Your task to perform on an android device: Go to Wikipedia Image 0: 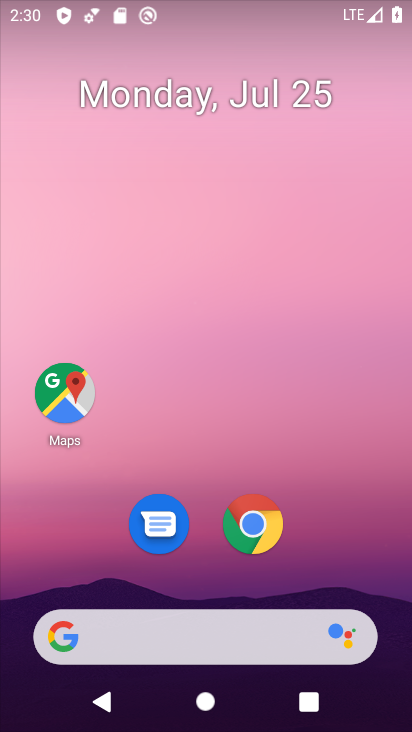
Step 0: click (260, 519)
Your task to perform on an android device: Go to Wikipedia Image 1: 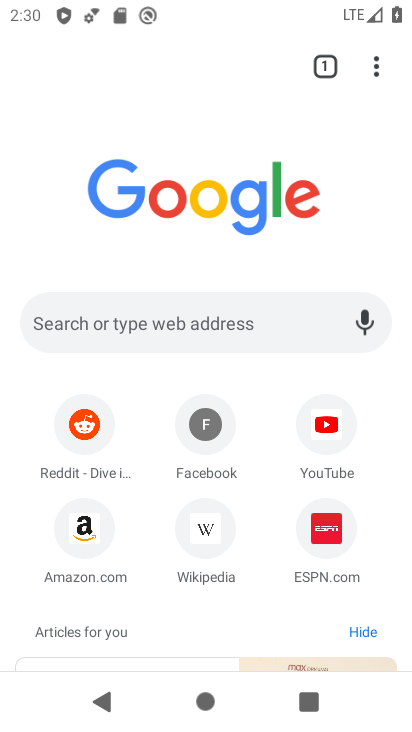
Step 1: click (260, 519)
Your task to perform on an android device: Go to Wikipedia Image 2: 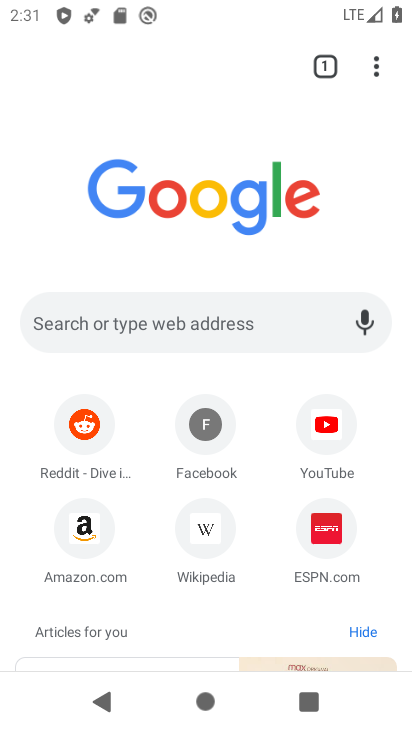
Step 2: click (219, 519)
Your task to perform on an android device: Go to Wikipedia Image 3: 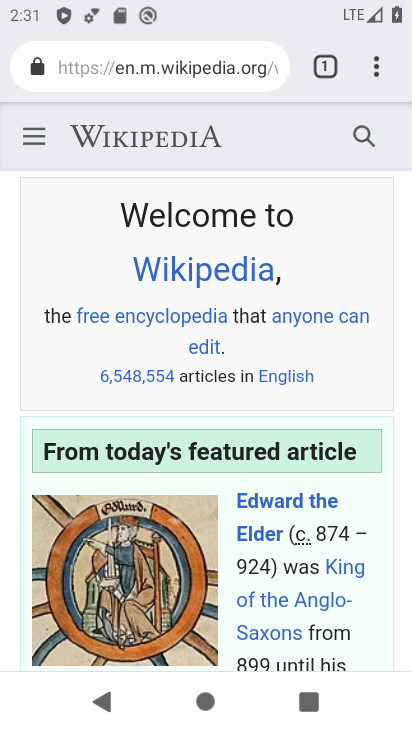
Step 3: task complete